Your task to perform on an android device: add a contact in the contacts app Image 0: 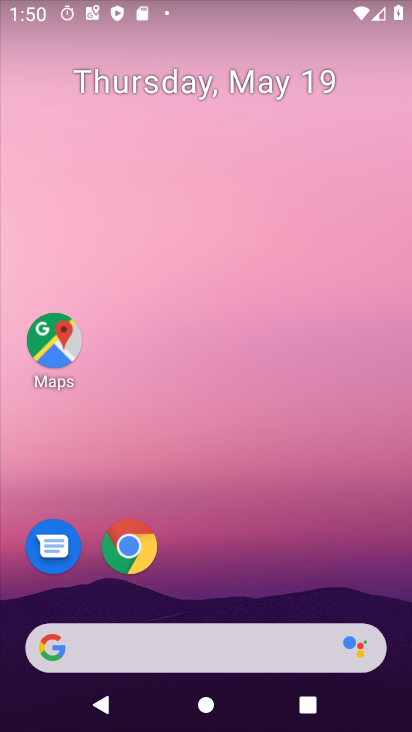
Step 0: drag from (189, 615) to (342, 42)
Your task to perform on an android device: add a contact in the contacts app Image 1: 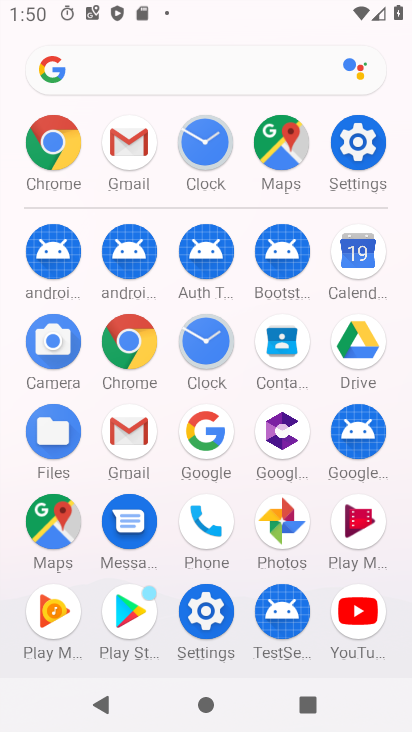
Step 1: click (279, 339)
Your task to perform on an android device: add a contact in the contacts app Image 2: 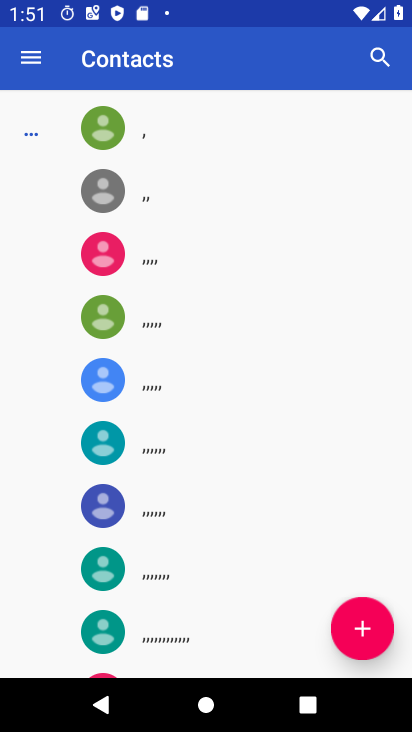
Step 2: click (358, 638)
Your task to perform on an android device: add a contact in the contacts app Image 3: 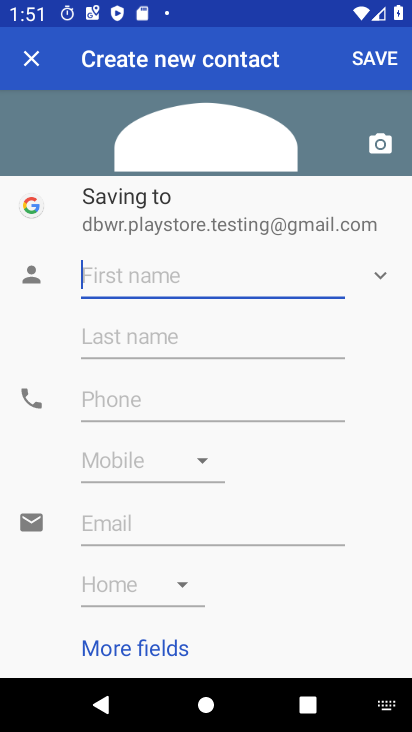
Step 3: type "kjh"
Your task to perform on an android device: add a contact in the contacts app Image 4: 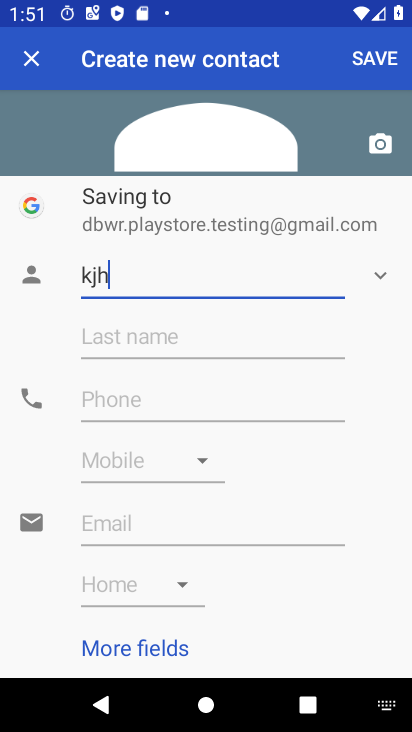
Step 4: type ""
Your task to perform on an android device: add a contact in the contacts app Image 5: 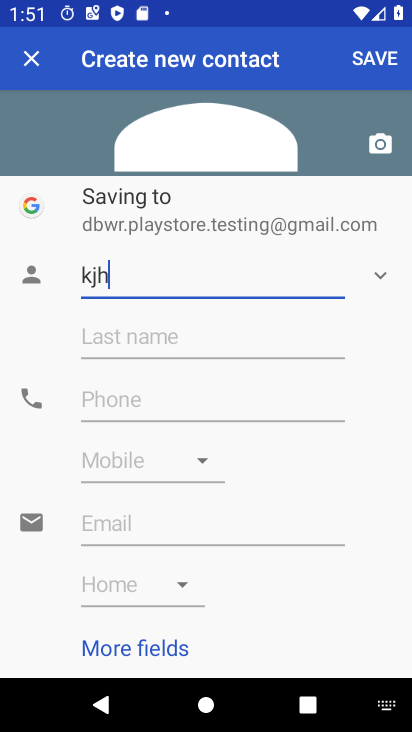
Step 5: click (147, 393)
Your task to perform on an android device: add a contact in the contacts app Image 6: 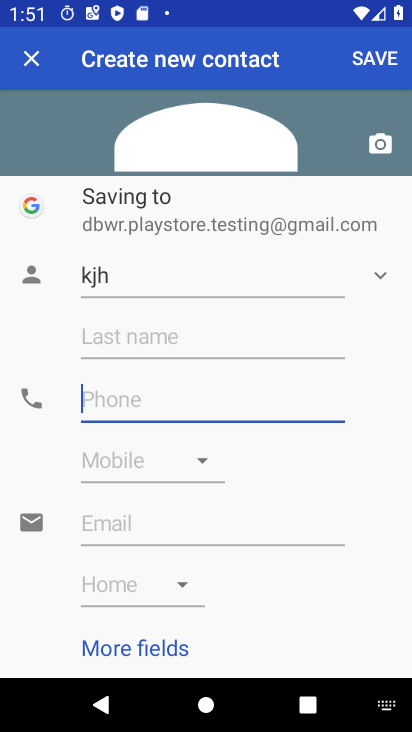
Step 6: type "987656789"
Your task to perform on an android device: add a contact in the contacts app Image 7: 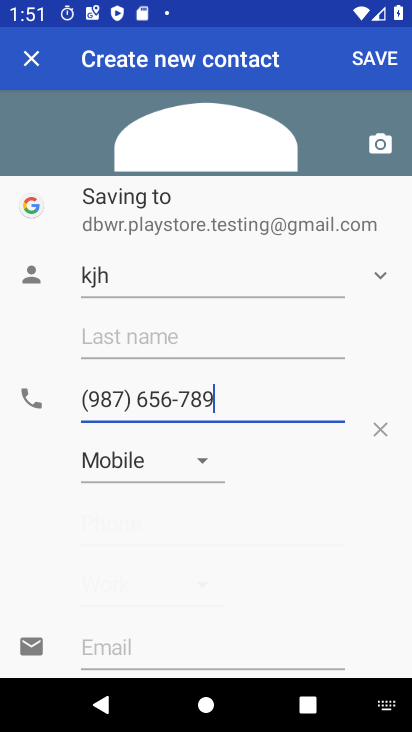
Step 7: type ""
Your task to perform on an android device: add a contact in the contacts app Image 8: 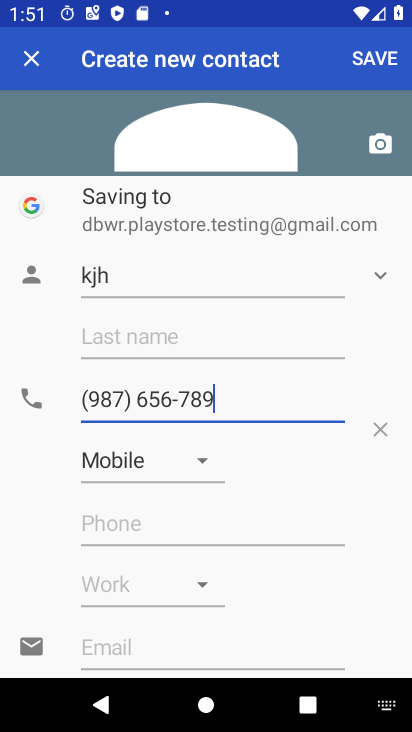
Step 8: click (377, 41)
Your task to perform on an android device: add a contact in the contacts app Image 9: 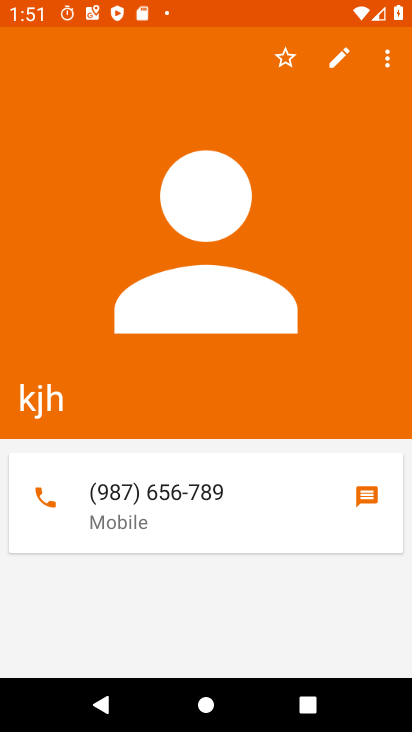
Step 9: task complete